Your task to perform on an android device: open the mobile data screen to see how much data has been used Image 0: 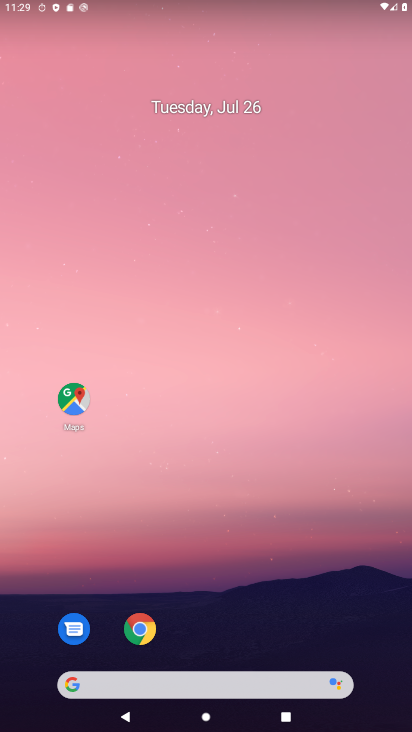
Step 0: drag from (317, 581) to (143, 81)
Your task to perform on an android device: open the mobile data screen to see how much data has been used Image 1: 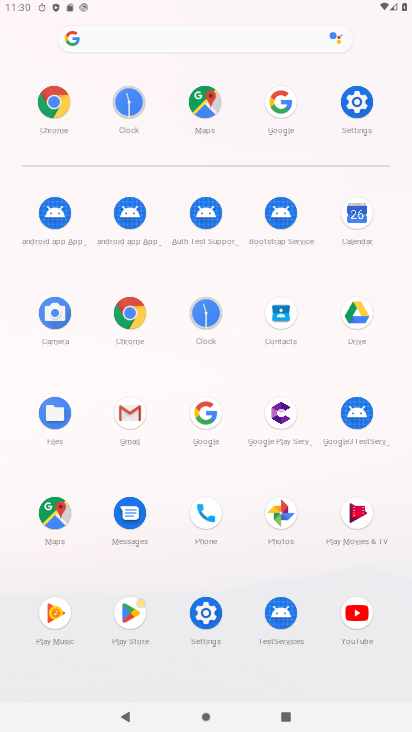
Step 1: click (202, 609)
Your task to perform on an android device: open the mobile data screen to see how much data has been used Image 2: 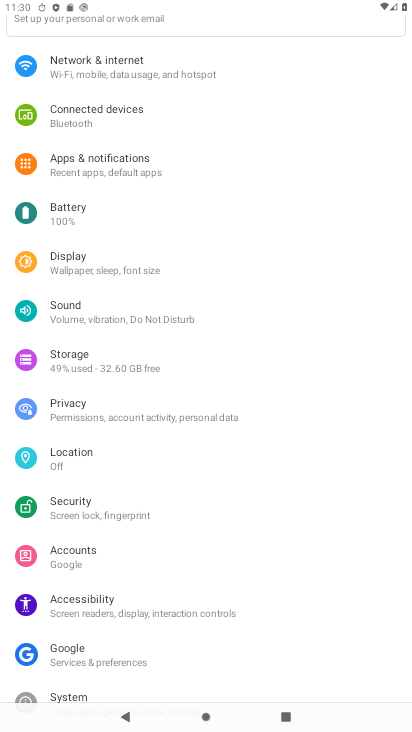
Step 2: click (118, 120)
Your task to perform on an android device: open the mobile data screen to see how much data has been used Image 3: 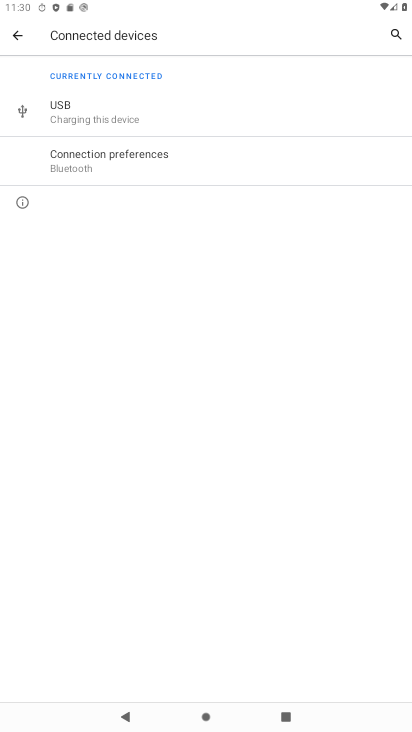
Step 3: task complete